Your task to perform on an android device: Play the last video I watched on Youtube Image 0: 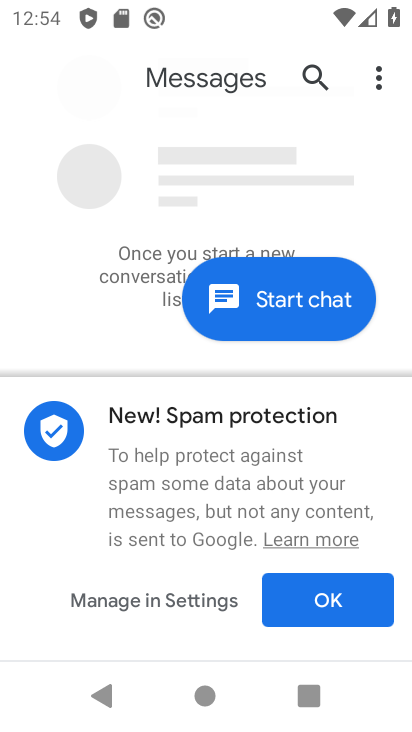
Step 0: press back button
Your task to perform on an android device: Play the last video I watched on Youtube Image 1: 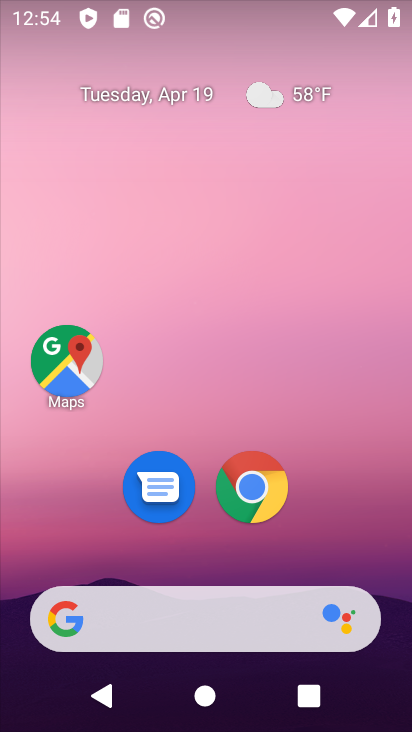
Step 1: drag from (200, 722) to (179, 130)
Your task to perform on an android device: Play the last video I watched on Youtube Image 2: 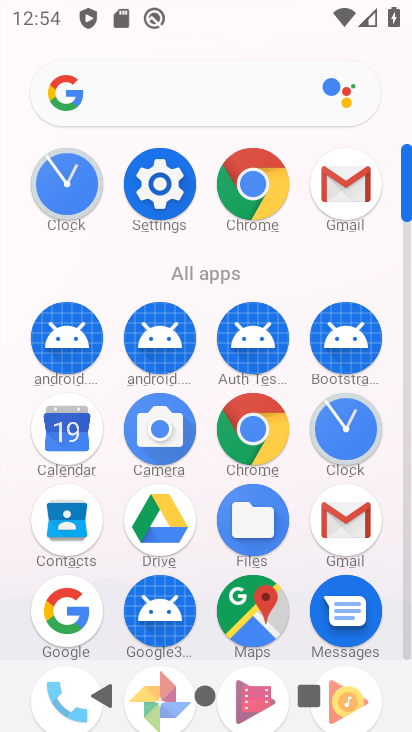
Step 2: drag from (206, 643) to (191, 174)
Your task to perform on an android device: Play the last video I watched on Youtube Image 3: 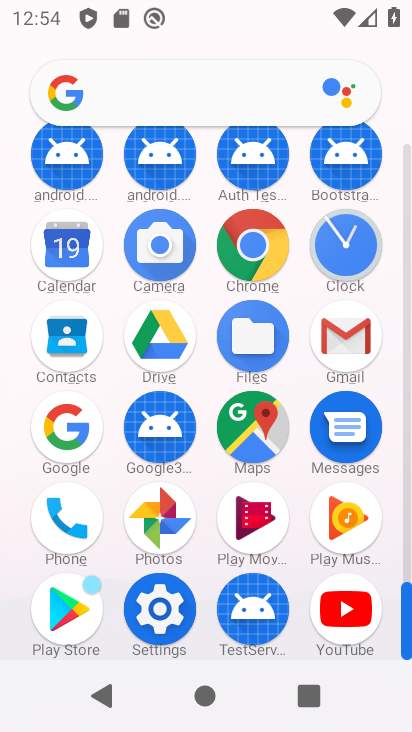
Step 3: click (338, 603)
Your task to perform on an android device: Play the last video I watched on Youtube Image 4: 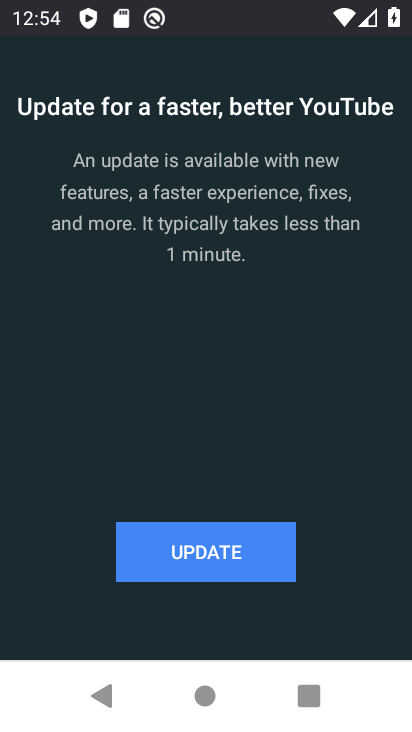
Step 4: click (218, 557)
Your task to perform on an android device: Play the last video I watched on Youtube Image 5: 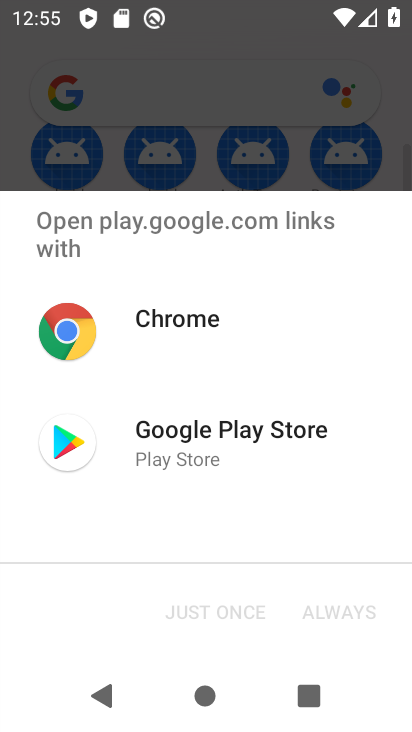
Step 5: click (195, 443)
Your task to perform on an android device: Play the last video I watched on Youtube Image 6: 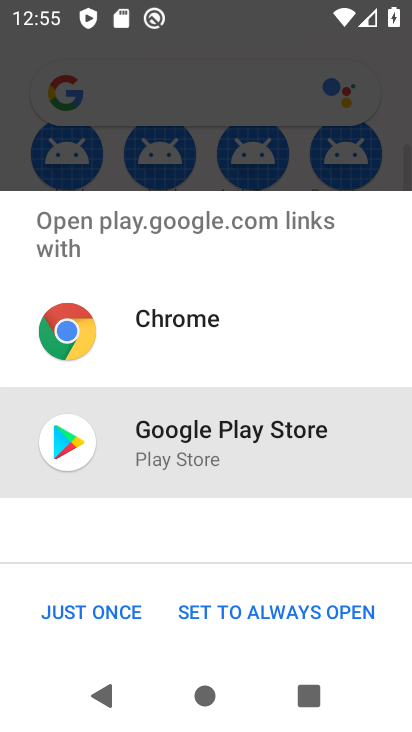
Step 6: click (73, 607)
Your task to perform on an android device: Play the last video I watched on Youtube Image 7: 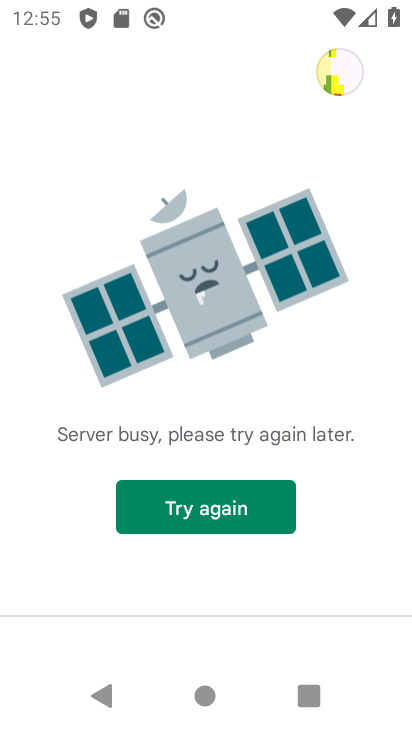
Step 7: click (196, 505)
Your task to perform on an android device: Play the last video I watched on Youtube Image 8: 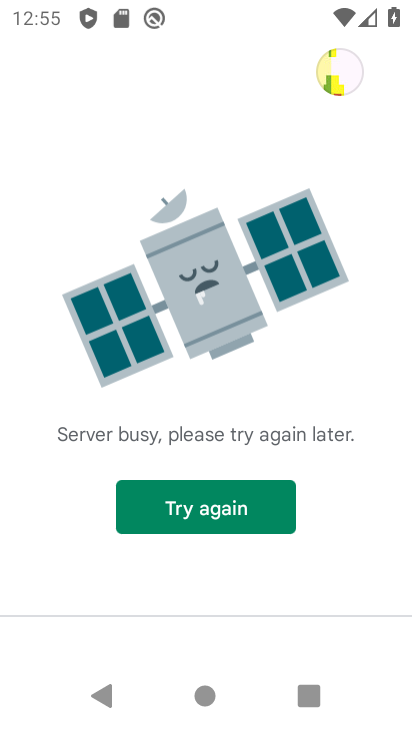
Step 8: task complete